Your task to perform on an android device: Show me productivity apps on the Play Store Image 0: 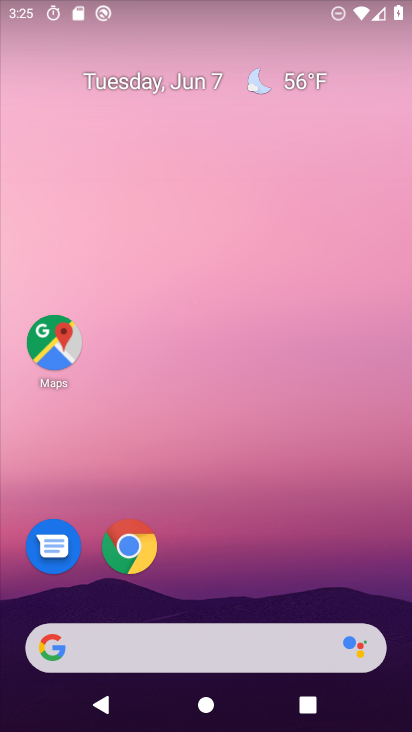
Step 0: drag from (312, 571) to (258, 10)
Your task to perform on an android device: Show me productivity apps on the Play Store Image 1: 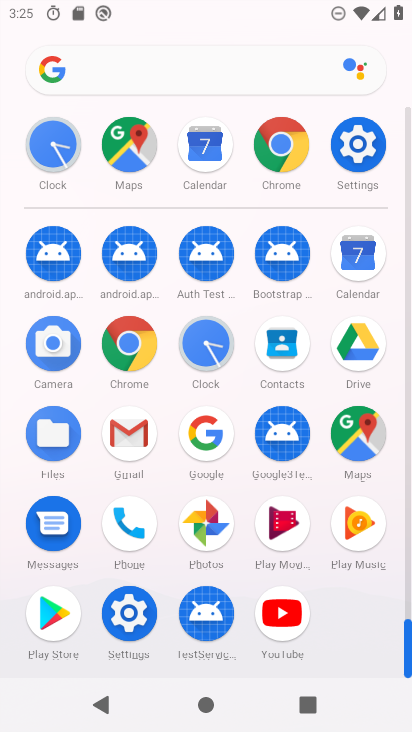
Step 1: drag from (7, 524) to (6, 227)
Your task to perform on an android device: Show me productivity apps on the Play Store Image 2: 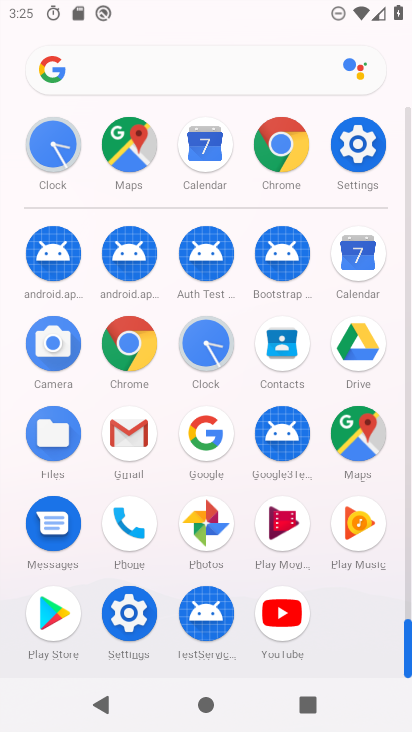
Step 2: click (56, 609)
Your task to perform on an android device: Show me productivity apps on the Play Store Image 3: 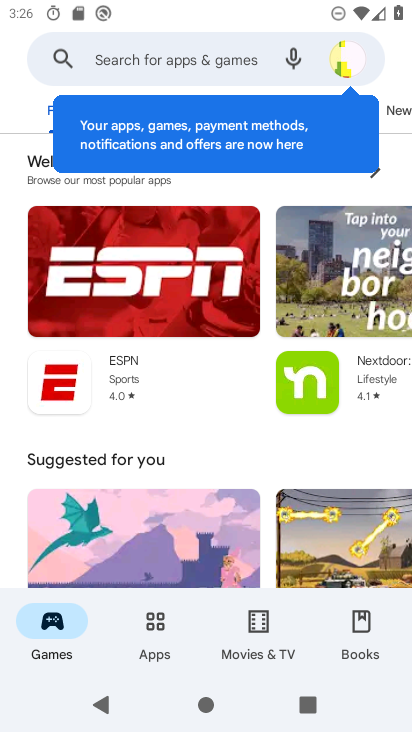
Step 3: click (153, 613)
Your task to perform on an android device: Show me productivity apps on the Play Store Image 4: 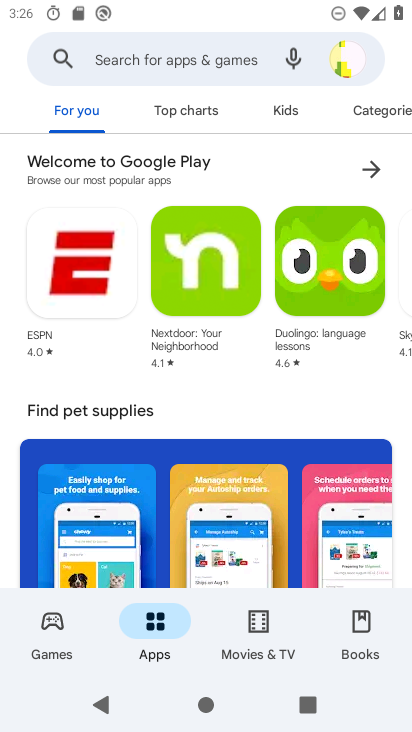
Step 4: click (392, 116)
Your task to perform on an android device: Show me productivity apps on the Play Store Image 5: 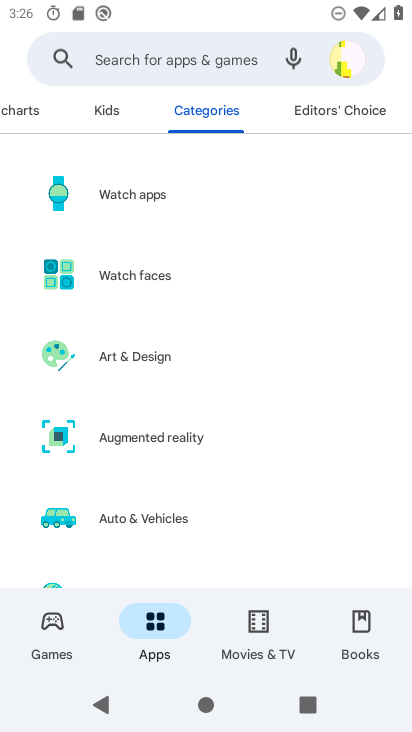
Step 5: drag from (248, 463) to (263, 160)
Your task to perform on an android device: Show me productivity apps on the Play Store Image 6: 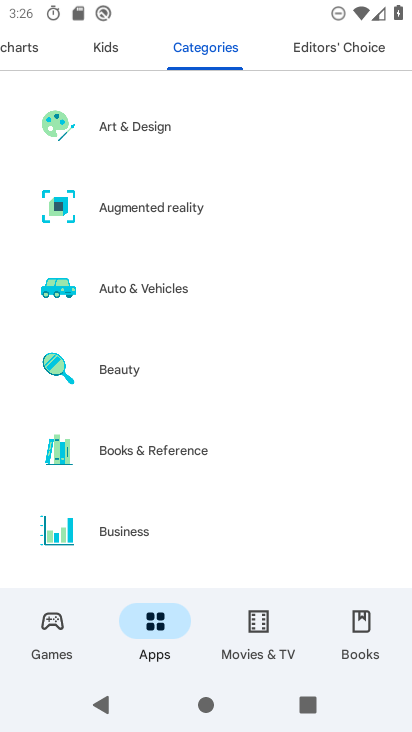
Step 6: drag from (248, 489) to (286, 152)
Your task to perform on an android device: Show me productivity apps on the Play Store Image 7: 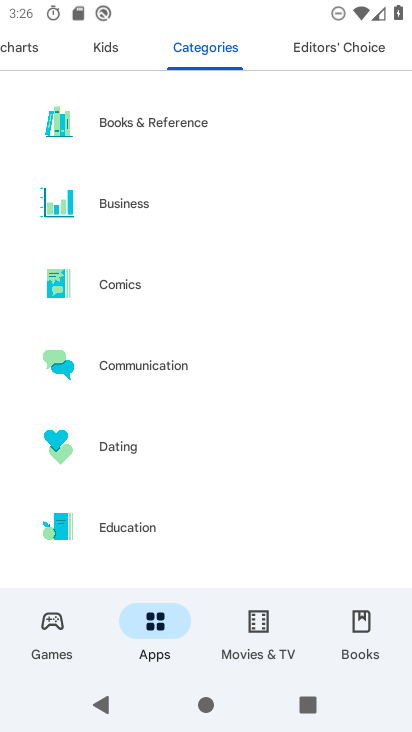
Step 7: drag from (266, 518) to (263, 172)
Your task to perform on an android device: Show me productivity apps on the Play Store Image 8: 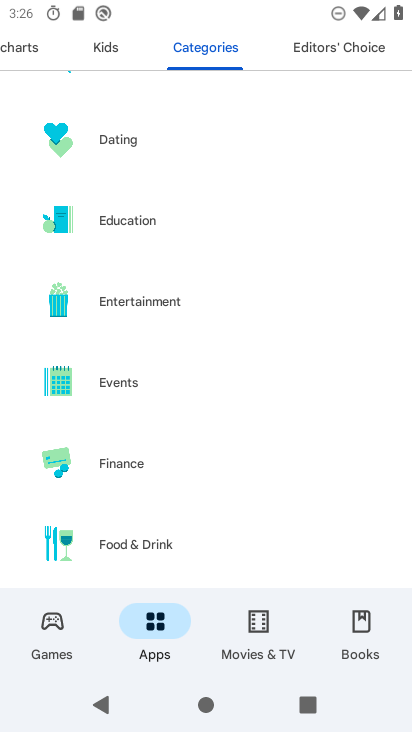
Step 8: drag from (228, 477) to (233, 152)
Your task to perform on an android device: Show me productivity apps on the Play Store Image 9: 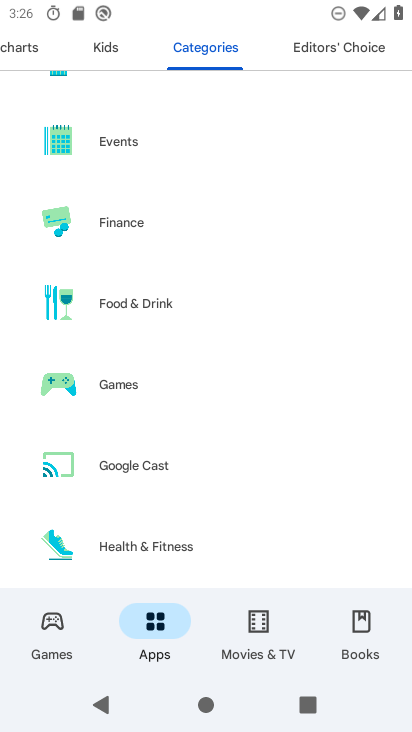
Step 9: drag from (235, 497) to (239, 183)
Your task to perform on an android device: Show me productivity apps on the Play Store Image 10: 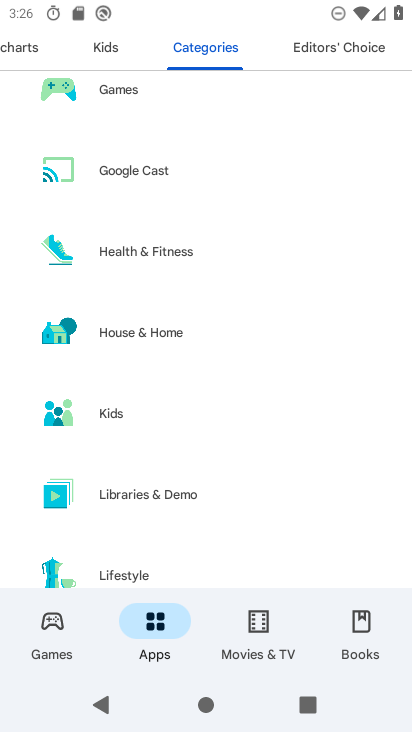
Step 10: drag from (207, 504) to (232, 179)
Your task to perform on an android device: Show me productivity apps on the Play Store Image 11: 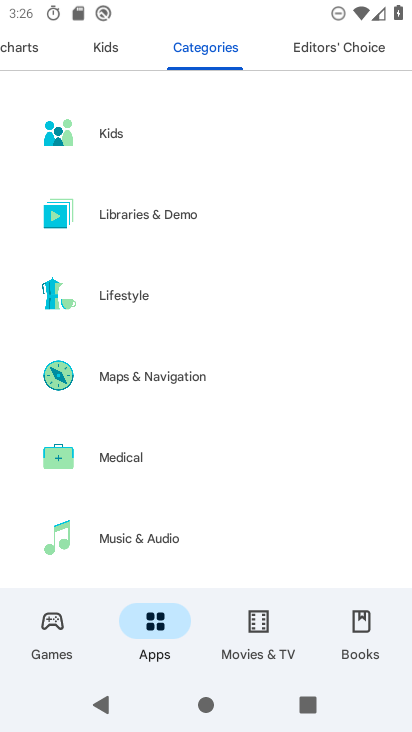
Step 11: drag from (204, 501) to (215, 177)
Your task to perform on an android device: Show me productivity apps on the Play Store Image 12: 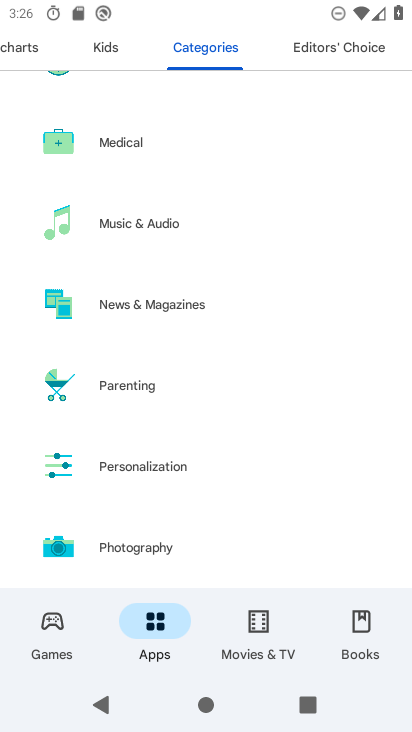
Step 12: drag from (207, 486) to (225, 248)
Your task to perform on an android device: Show me productivity apps on the Play Store Image 13: 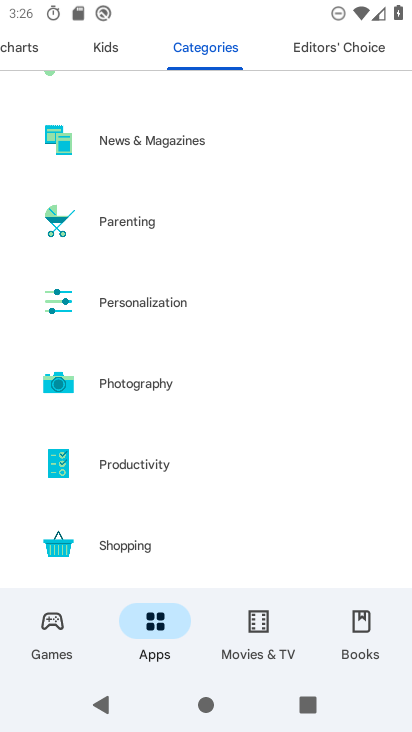
Step 13: click (165, 298)
Your task to perform on an android device: Show me productivity apps on the Play Store Image 14: 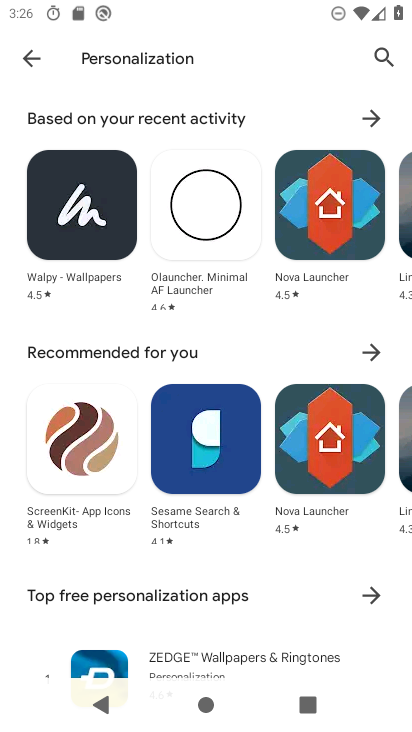
Step 14: click (30, 63)
Your task to perform on an android device: Show me productivity apps on the Play Store Image 15: 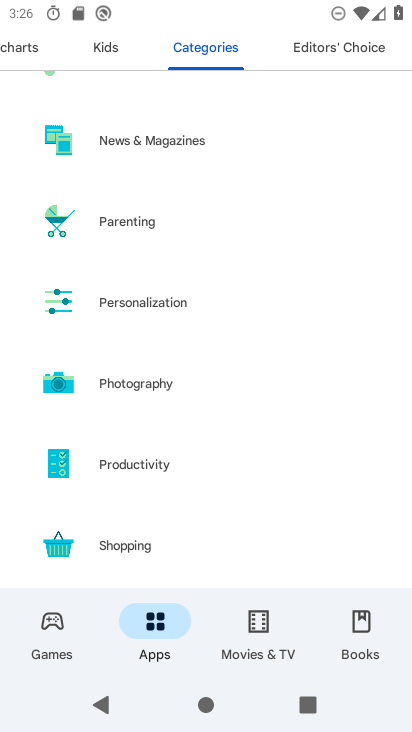
Step 15: click (168, 463)
Your task to perform on an android device: Show me productivity apps on the Play Store Image 16: 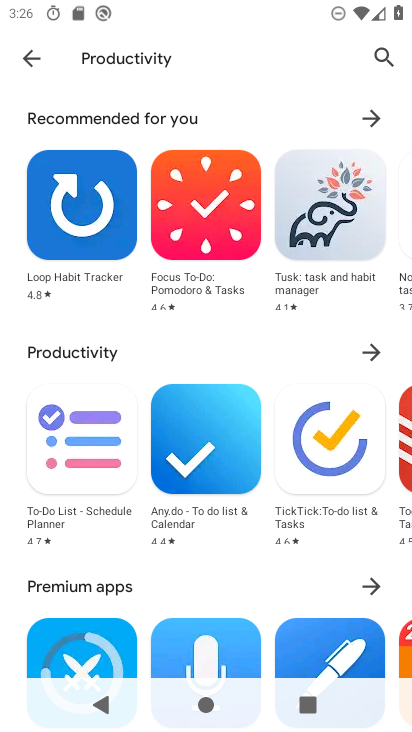
Step 16: task complete